Your task to perform on an android device: toggle pop-ups in chrome Image 0: 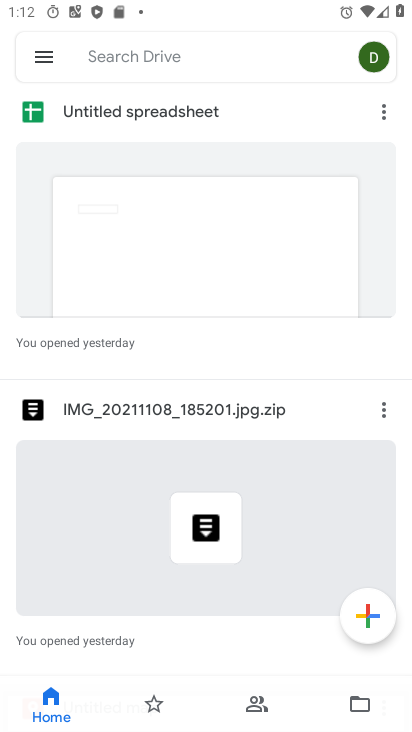
Step 0: press home button
Your task to perform on an android device: toggle pop-ups in chrome Image 1: 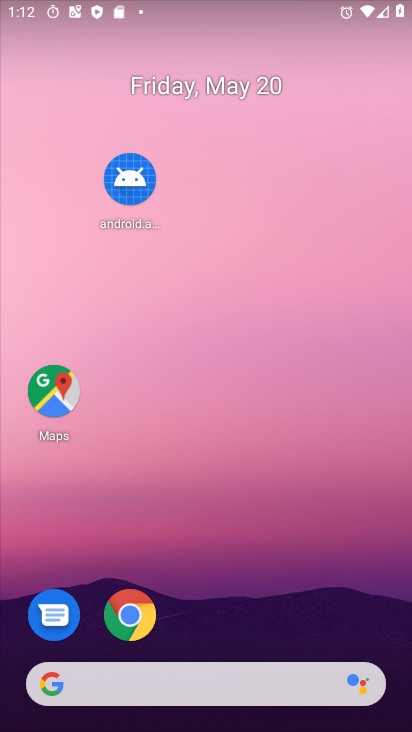
Step 1: click (142, 640)
Your task to perform on an android device: toggle pop-ups in chrome Image 2: 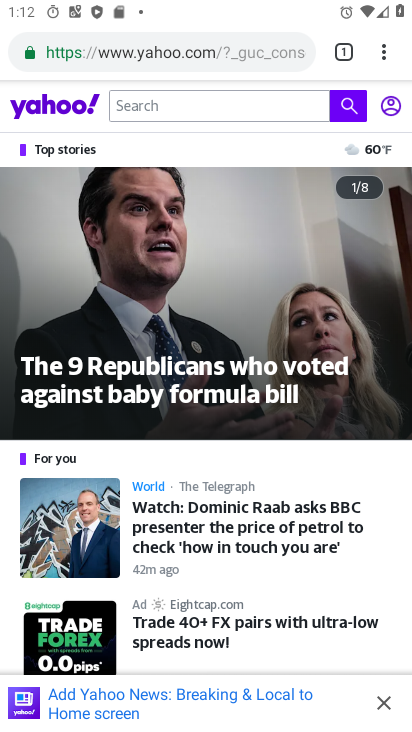
Step 2: click (385, 51)
Your task to perform on an android device: toggle pop-ups in chrome Image 3: 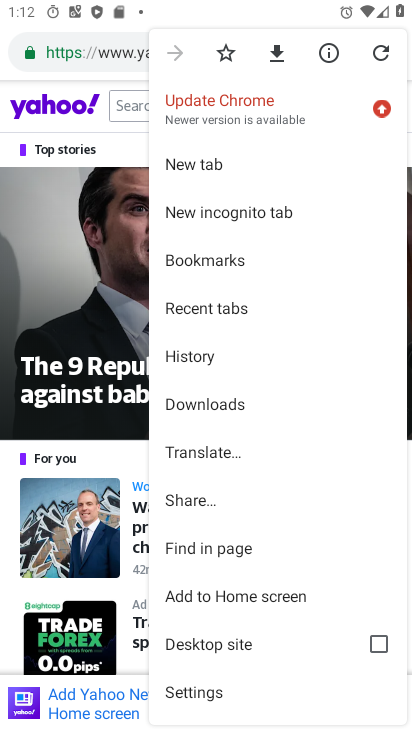
Step 3: click (234, 692)
Your task to perform on an android device: toggle pop-ups in chrome Image 4: 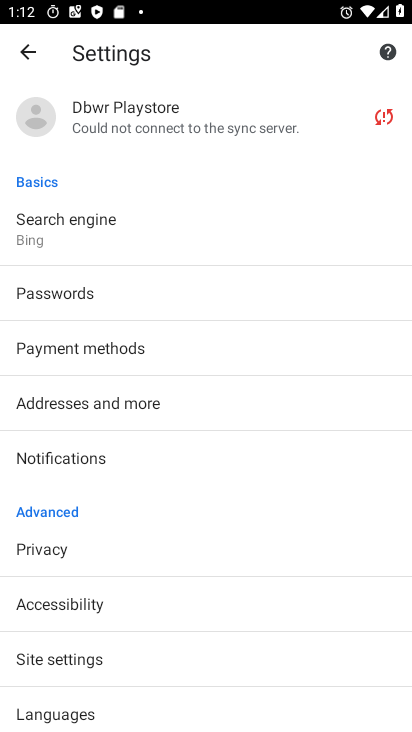
Step 4: click (209, 651)
Your task to perform on an android device: toggle pop-ups in chrome Image 5: 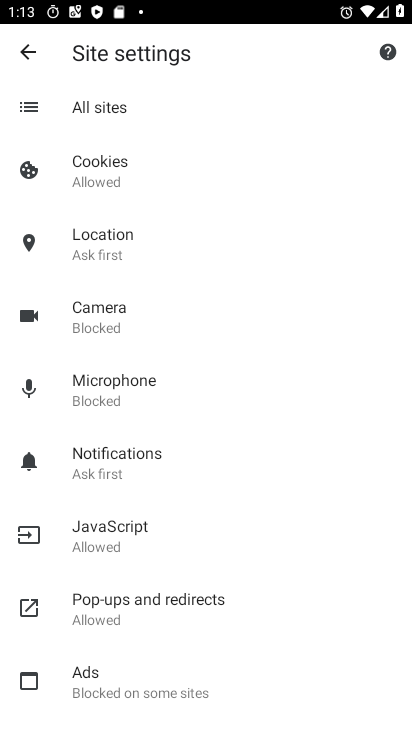
Step 5: click (189, 613)
Your task to perform on an android device: toggle pop-ups in chrome Image 6: 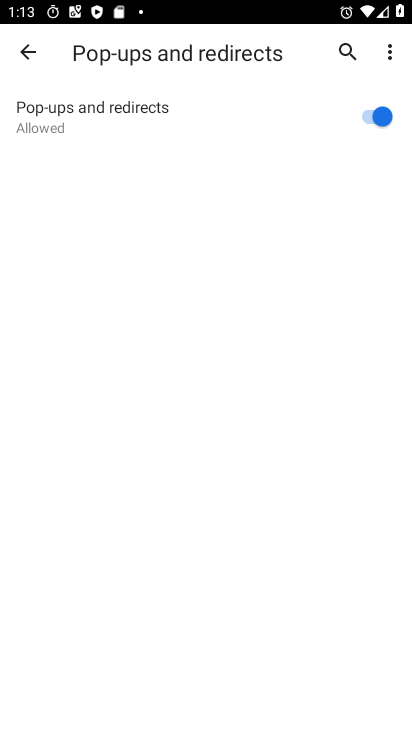
Step 6: click (372, 124)
Your task to perform on an android device: toggle pop-ups in chrome Image 7: 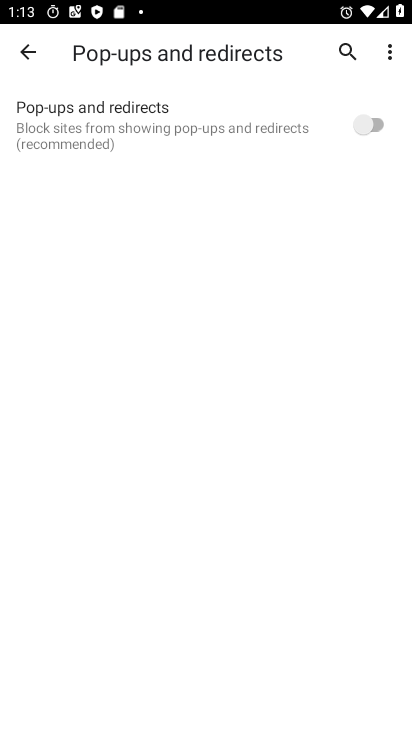
Step 7: task complete